Your task to perform on an android device: Open Chrome and go to the settings page Image 0: 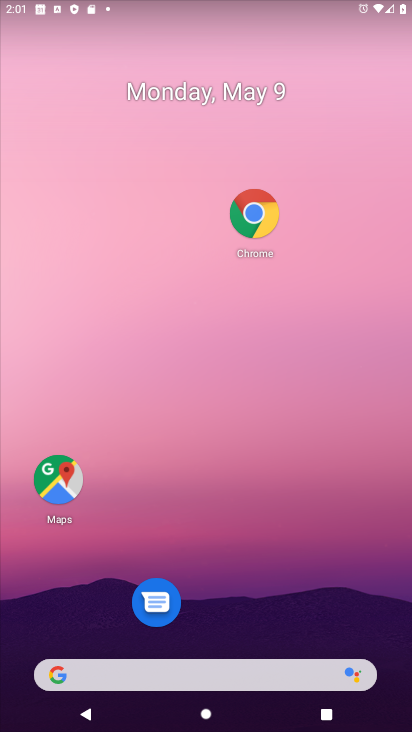
Step 0: click (305, 590)
Your task to perform on an android device: Open Chrome and go to the settings page Image 1: 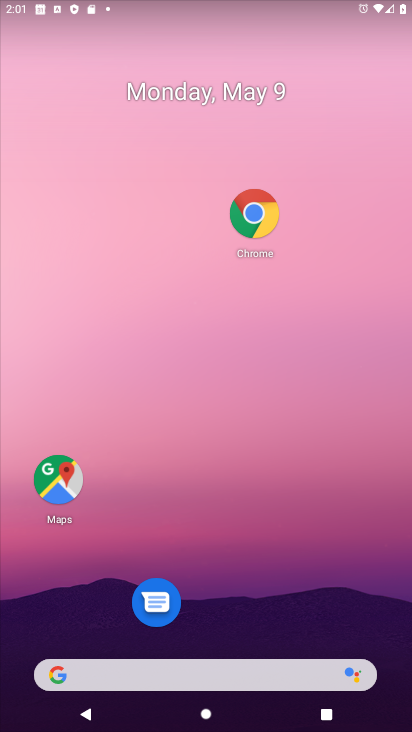
Step 1: click (262, 229)
Your task to perform on an android device: Open Chrome and go to the settings page Image 2: 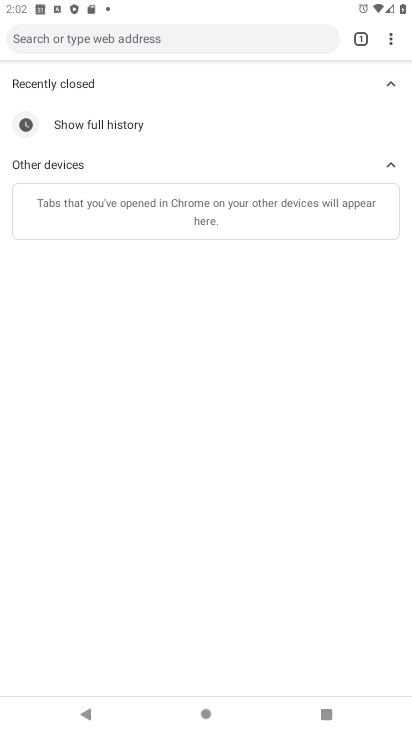
Step 2: press home button
Your task to perform on an android device: Open Chrome and go to the settings page Image 3: 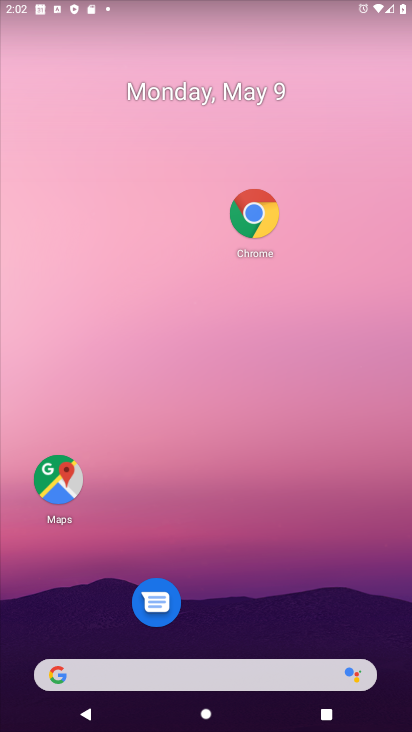
Step 3: click (281, 236)
Your task to perform on an android device: Open Chrome and go to the settings page Image 4: 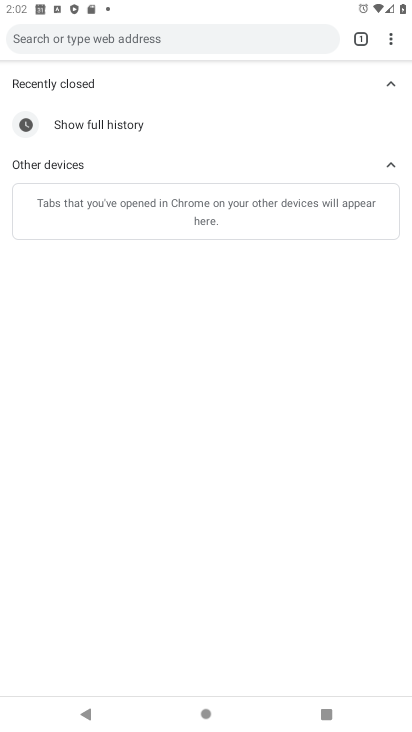
Step 4: click (393, 37)
Your task to perform on an android device: Open Chrome and go to the settings page Image 5: 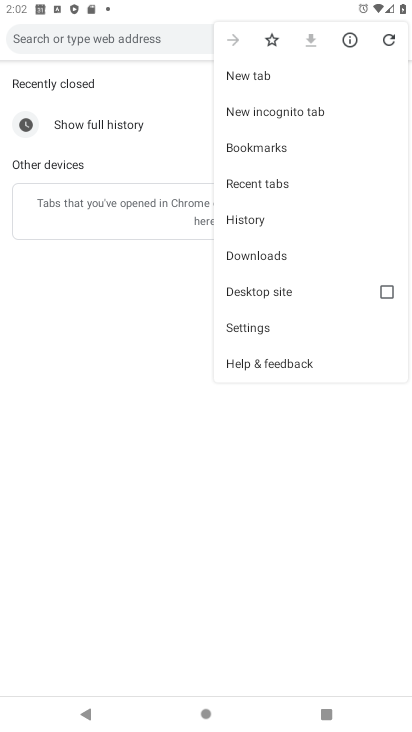
Step 5: click (280, 324)
Your task to perform on an android device: Open Chrome and go to the settings page Image 6: 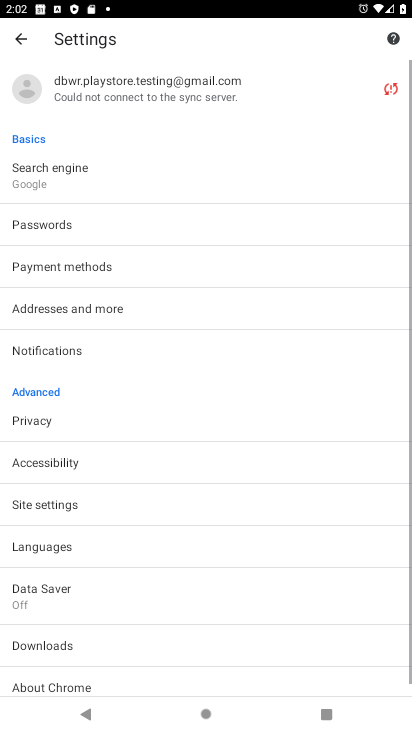
Step 6: task complete